Your task to perform on an android device: turn off picture-in-picture Image 0: 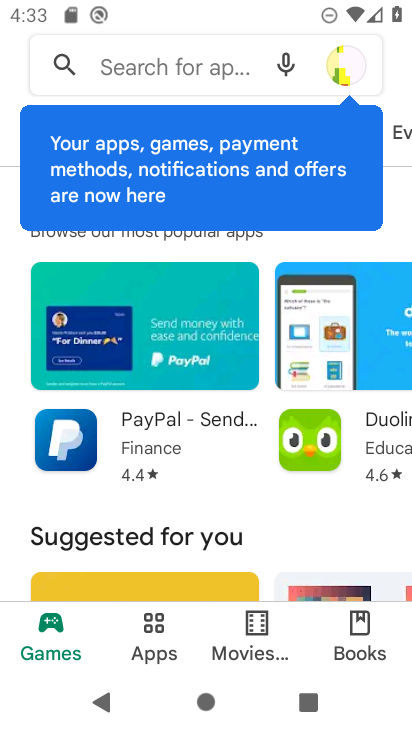
Step 0: press home button
Your task to perform on an android device: turn off picture-in-picture Image 1: 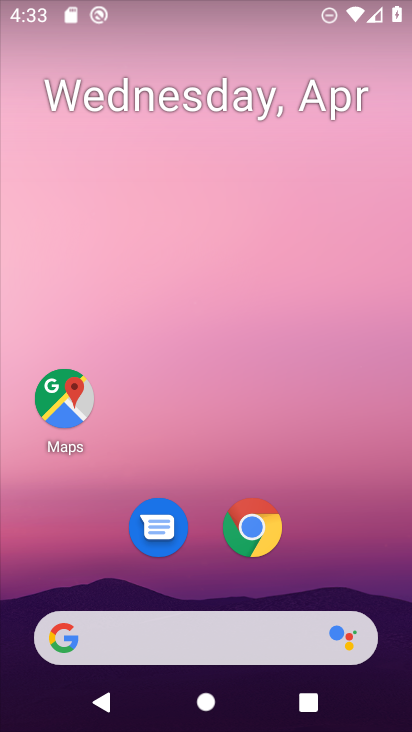
Step 1: click (253, 528)
Your task to perform on an android device: turn off picture-in-picture Image 2: 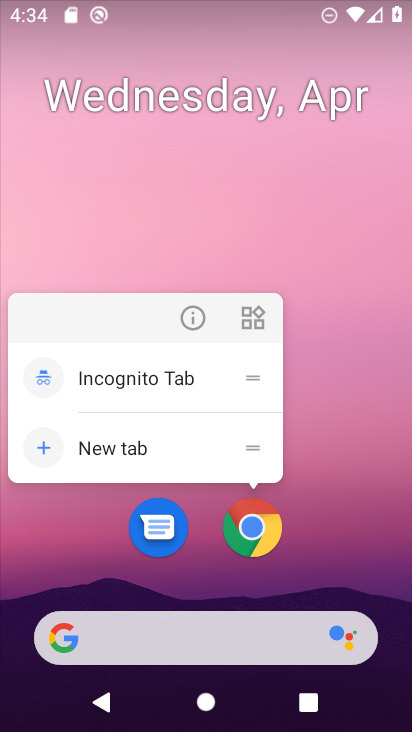
Step 2: click (202, 317)
Your task to perform on an android device: turn off picture-in-picture Image 3: 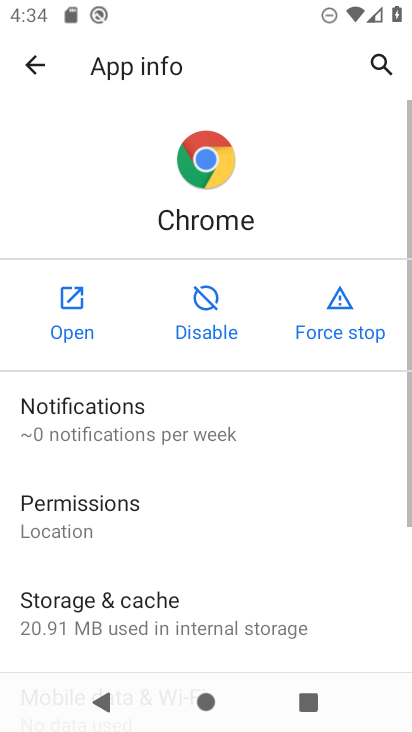
Step 3: drag from (292, 551) to (247, 160)
Your task to perform on an android device: turn off picture-in-picture Image 4: 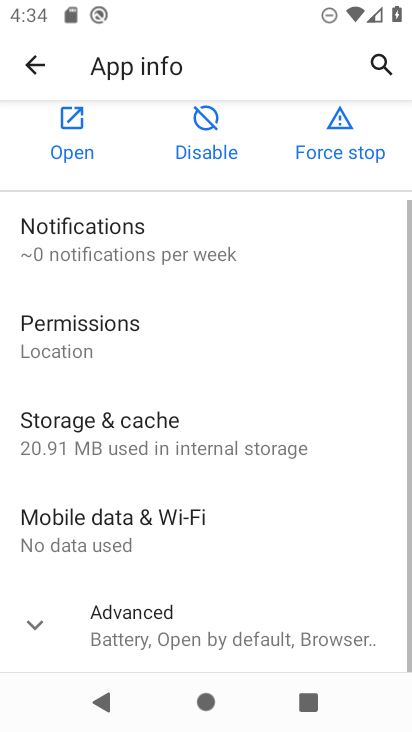
Step 4: drag from (261, 565) to (216, 118)
Your task to perform on an android device: turn off picture-in-picture Image 5: 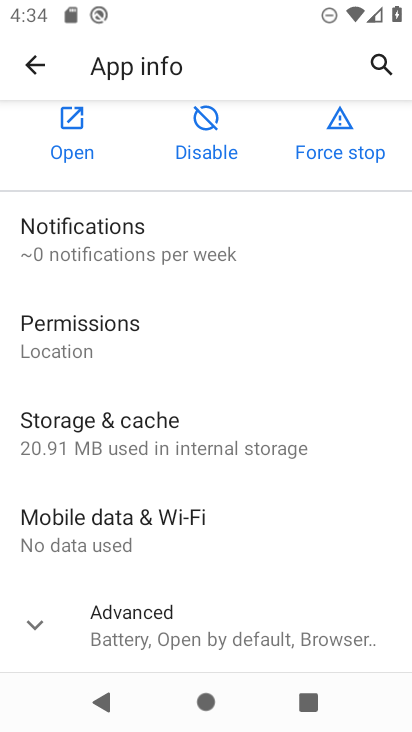
Step 5: click (35, 638)
Your task to perform on an android device: turn off picture-in-picture Image 6: 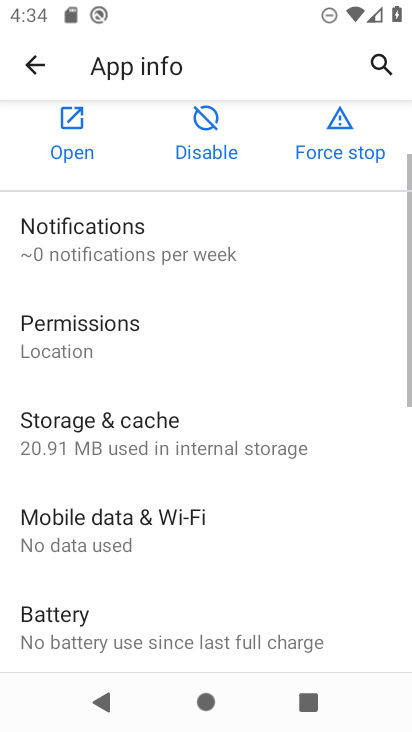
Step 6: drag from (178, 623) to (183, 175)
Your task to perform on an android device: turn off picture-in-picture Image 7: 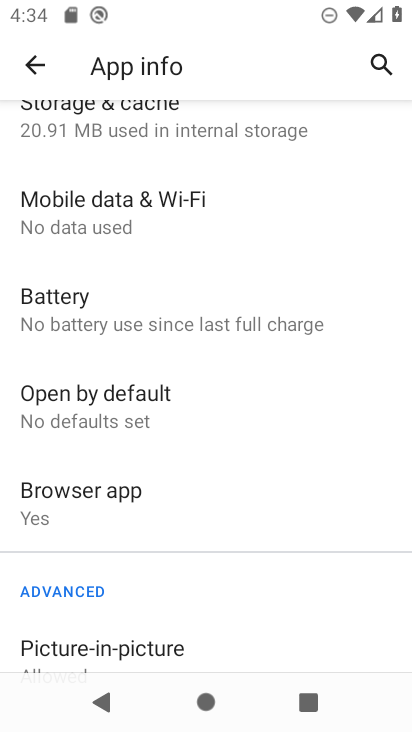
Step 7: drag from (191, 522) to (173, 190)
Your task to perform on an android device: turn off picture-in-picture Image 8: 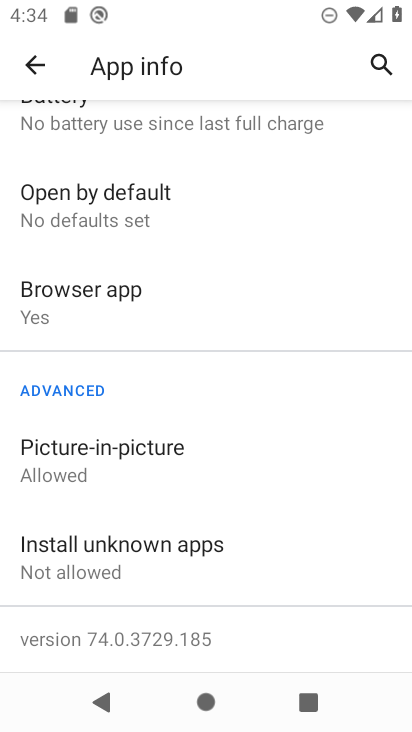
Step 8: click (69, 468)
Your task to perform on an android device: turn off picture-in-picture Image 9: 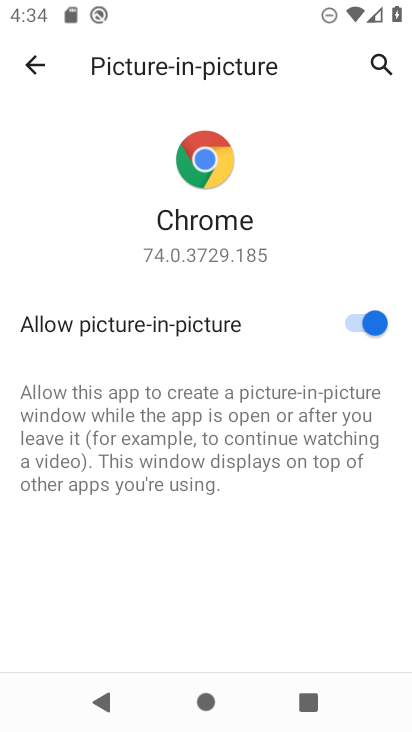
Step 9: click (375, 317)
Your task to perform on an android device: turn off picture-in-picture Image 10: 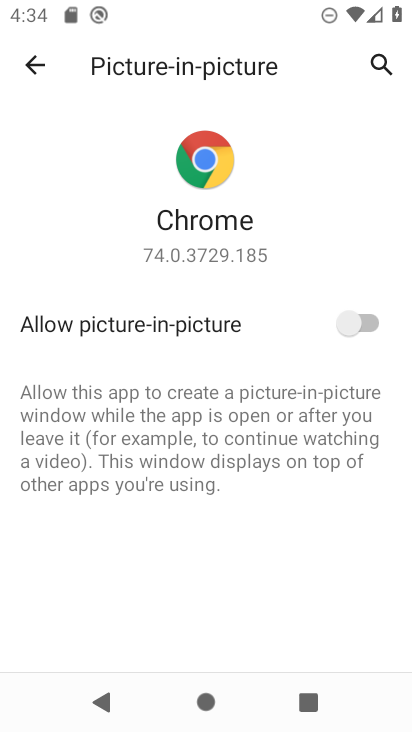
Step 10: task complete